Your task to perform on an android device: change alarm snooze length Image 0: 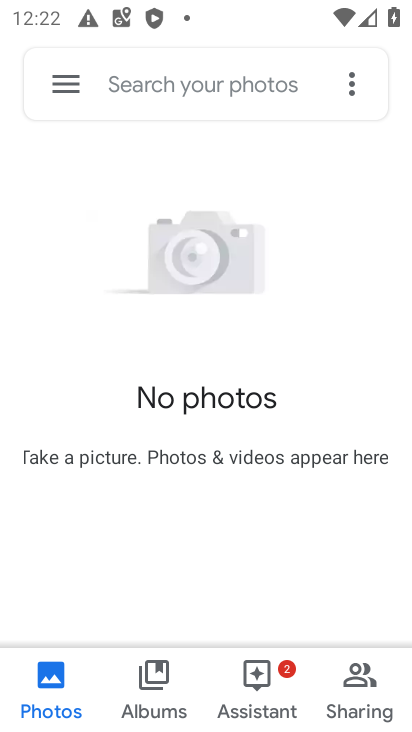
Step 0: press home button
Your task to perform on an android device: change alarm snooze length Image 1: 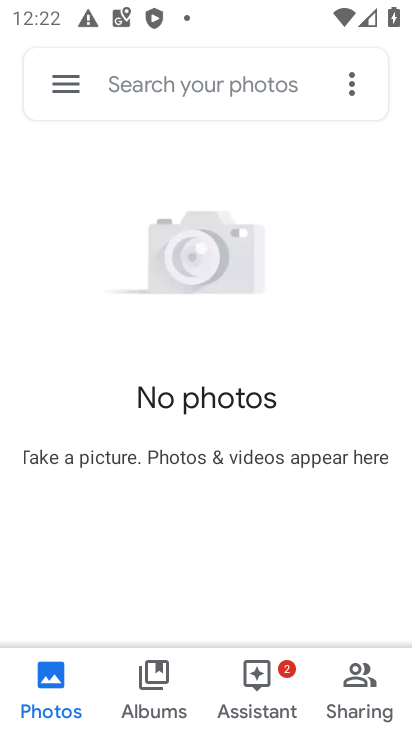
Step 1: press home button
Your task to perform on an android device: change alarm snooze length Image 2: 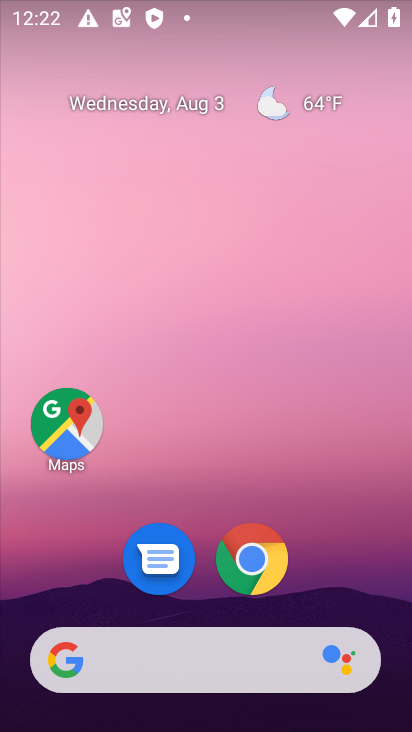
Step 2: drag from (201, 607) to (197, 72)
Your task to perform on an android device: change alarm snooze length Image 3: 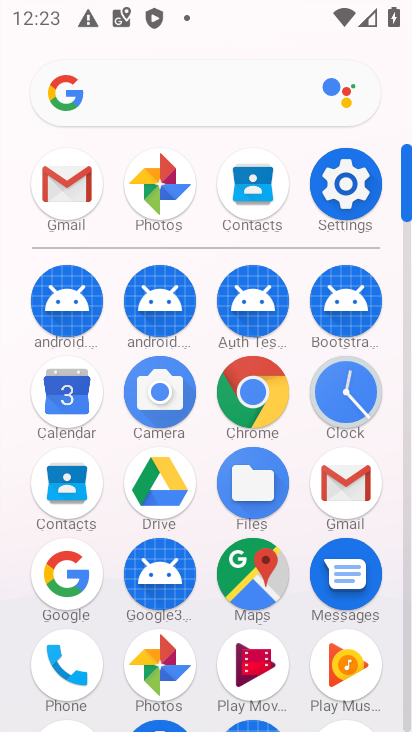
Step 3: click (344, 396)
Your task to perform on an android device: change alarm snooze length Image 4: 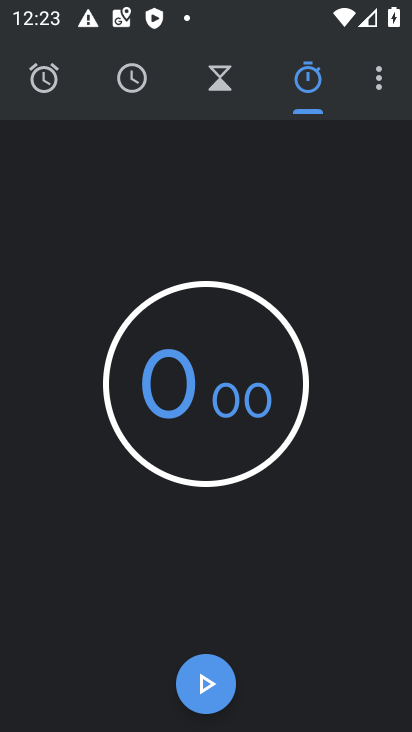
Step 4: click (379, 88)
Your task to perform on an android device: change alarm snooze length Image 5: 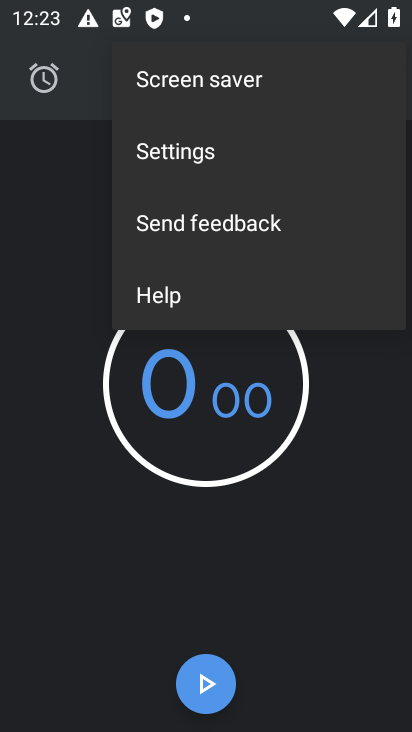
Step 5: click (172, 153)
Your task to perform on an android device: change alarm snooze length Image 6: 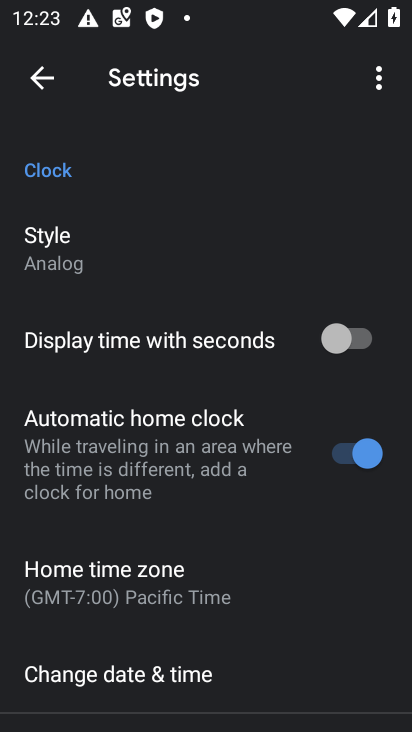
Step 6: drag from (113, 637) to (123, 256)
Your task to perform on an android device: change alarm snooze length Image 7: 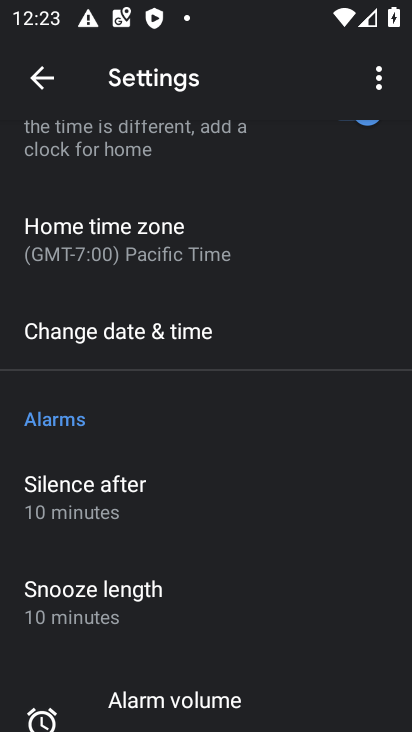
Step 7: click (84, 513)
Your task to perform on an android device: change alarm snooze length Image 8: 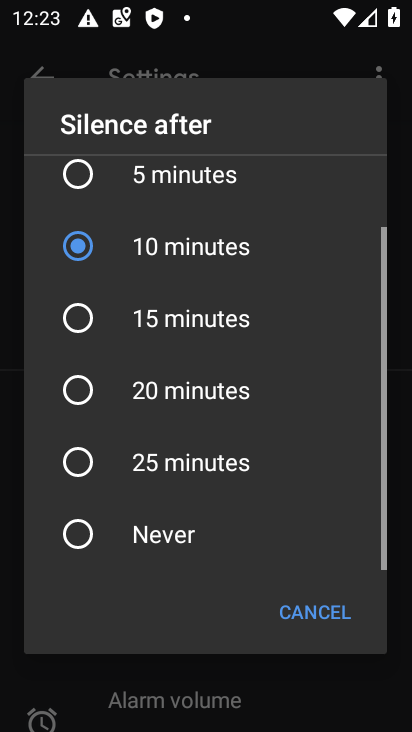
Step 8: click (77, 392)
Your task to perform on an android device: change alarm snooze length Image 9: 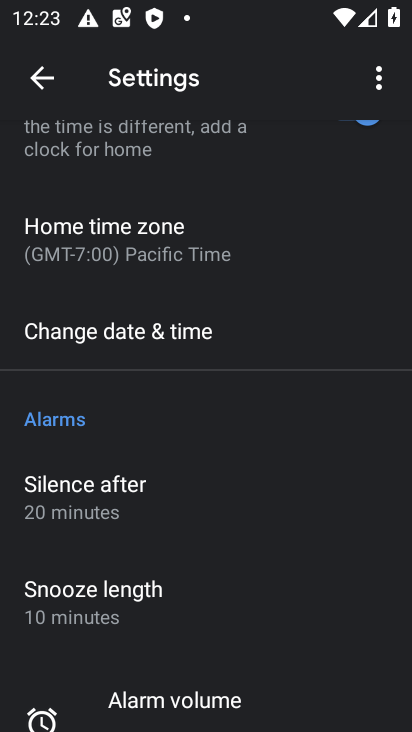
Step 9: task complete